Your task to perform on an android device: Open Maps and search for coffee Image 0: 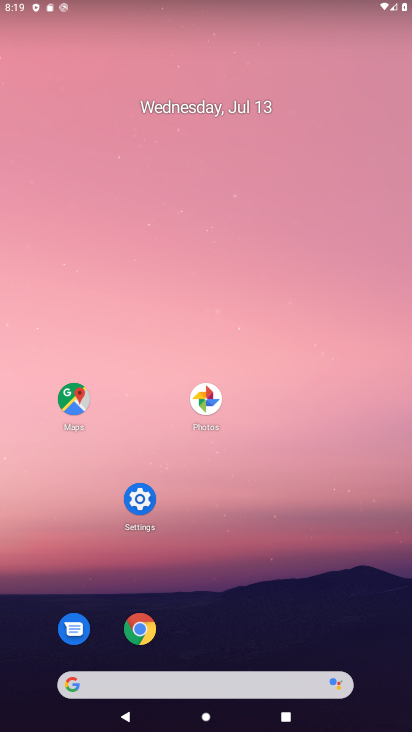
Step 0: click (76, 403)
Your task to perform on an android device: Open Maps and search for coffee Image 1: 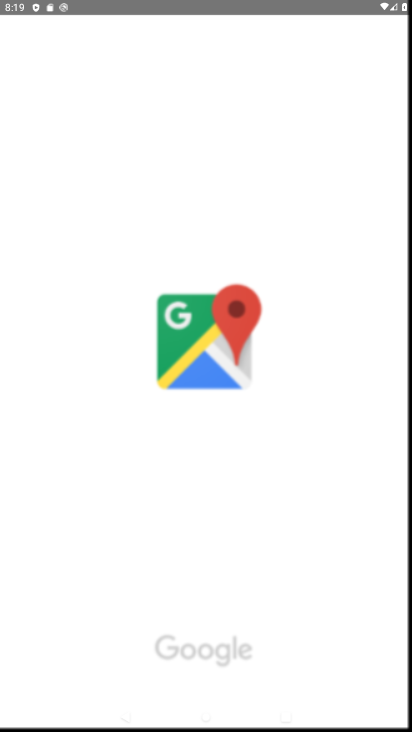
Step 1: click (198, 473)
Your task to perform on an android device: Open Maps and search for coffee Image 2: 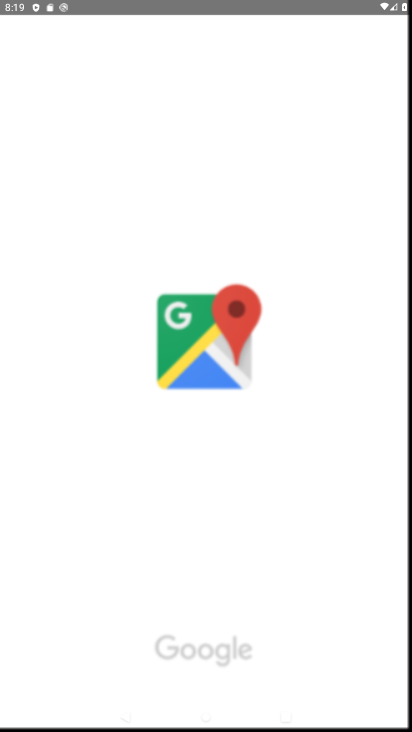
Step 2: click (198, 473)
Your task to perform on an android device: Open Maps and search for coffee Image 3: 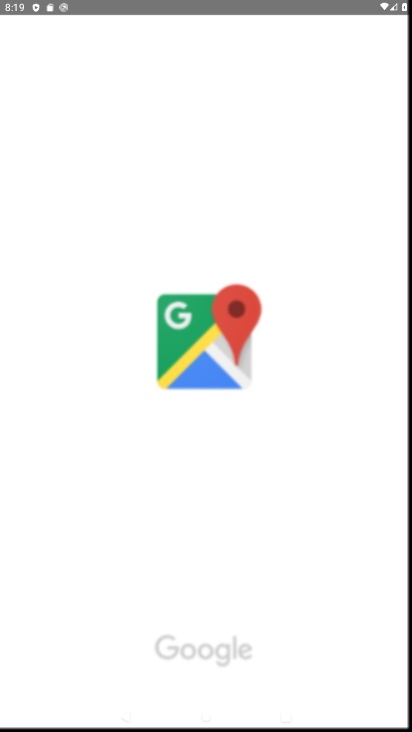
Step 3: task complete